Your task to perform on an android device: Open Yahoo.com Image 0: 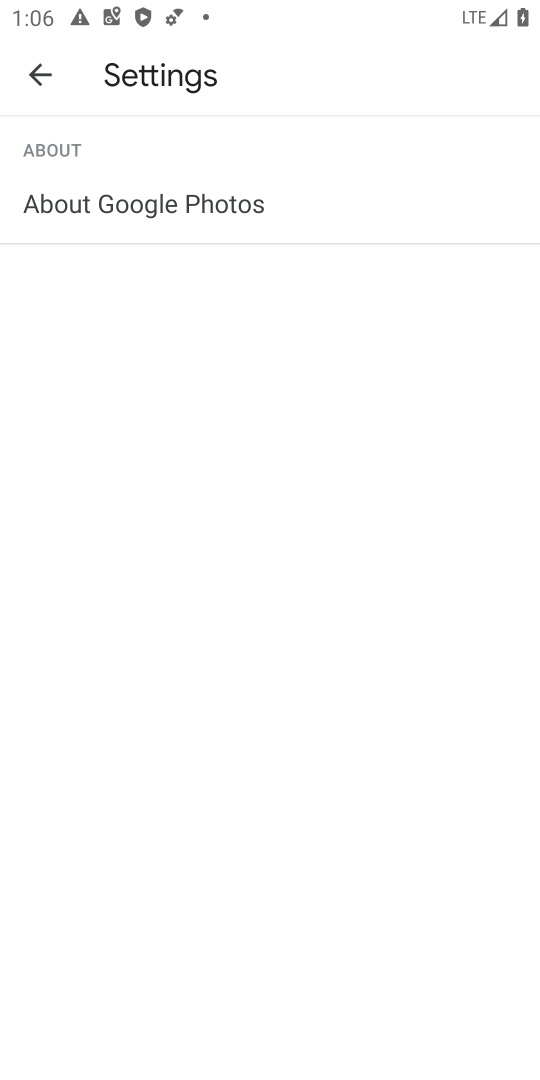
Step 0: press home button
Your task to perform on an android device: Open Yahoo.com Image 1: 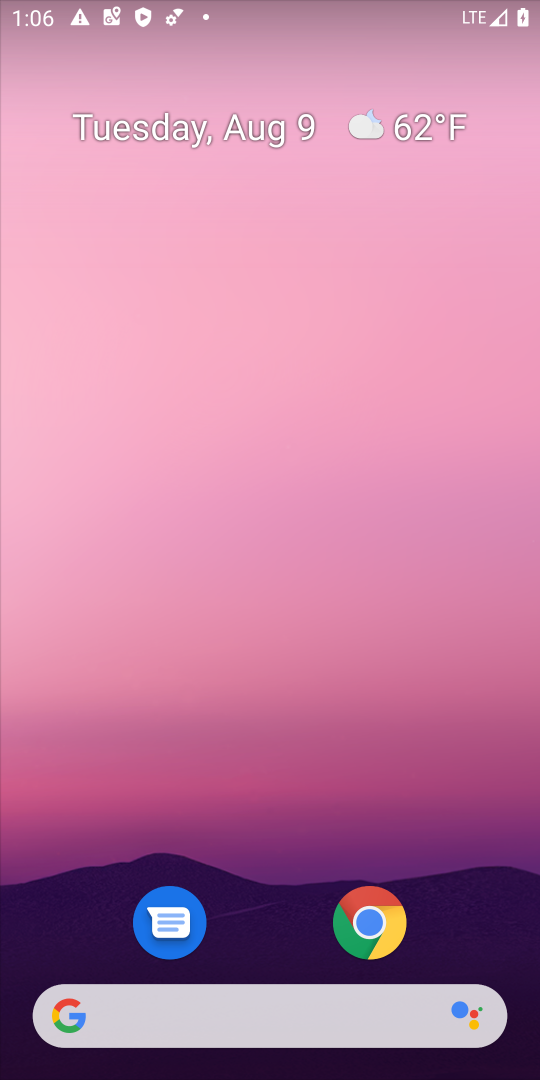
Step 1: click (370, 922)
Your task to perform on an android device: Open Yahoo.com Image 2: 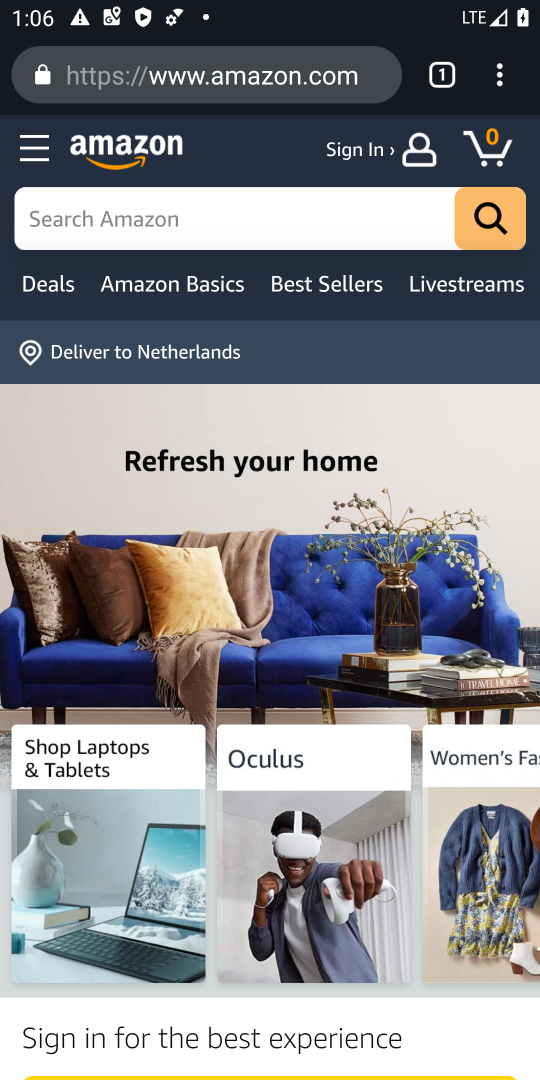
Step 2: click (442, 76)
Your task to perform on an android device: Open Yahoo.com Image 3: 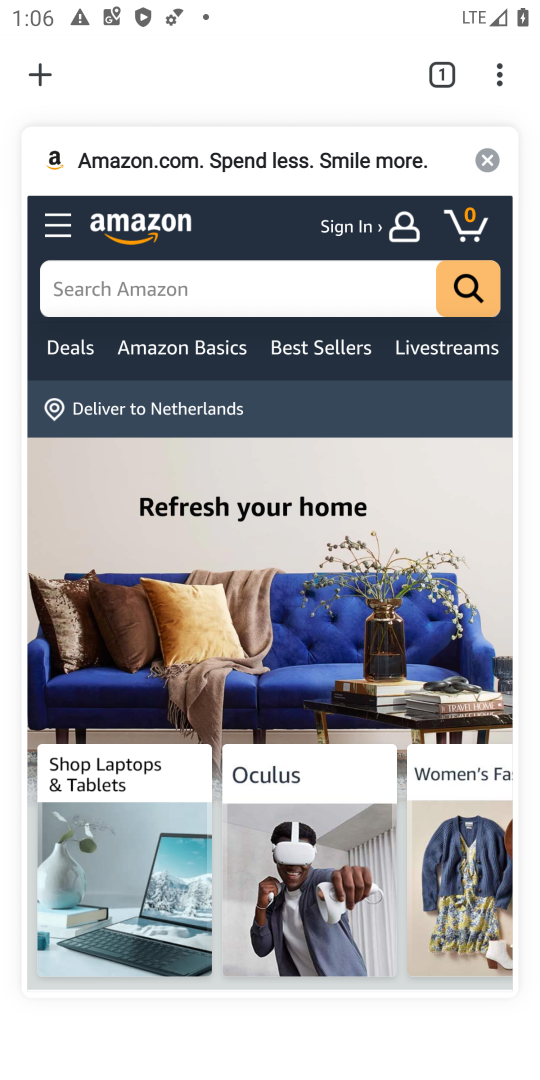
Step 3: click (40, 74)
Your task to perform on an android device: Open Yahoo.com Image 4: 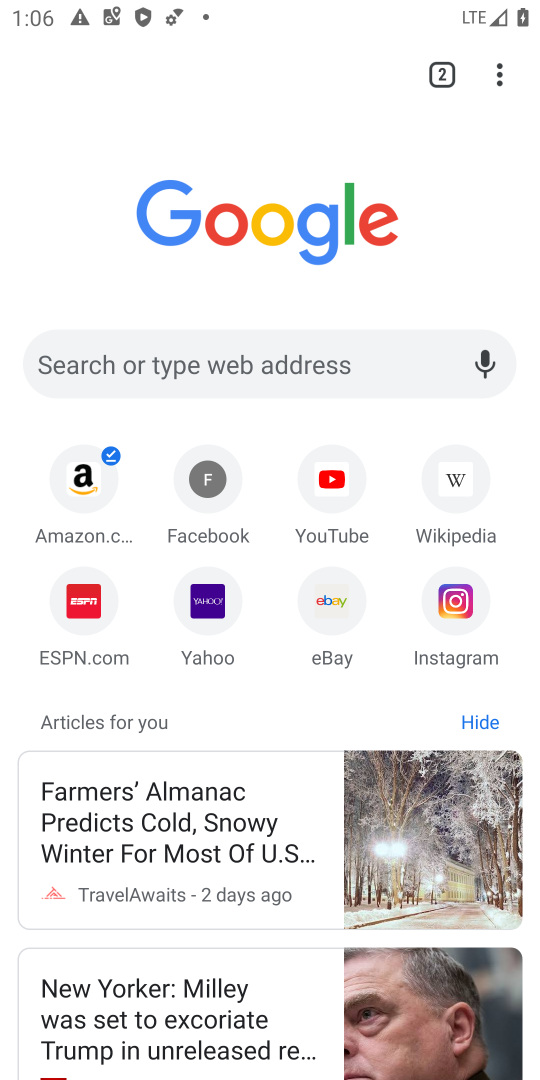
Step 4: click (227, 610)
Your task to perform on an android device: Open Yahoo.com Image 5: 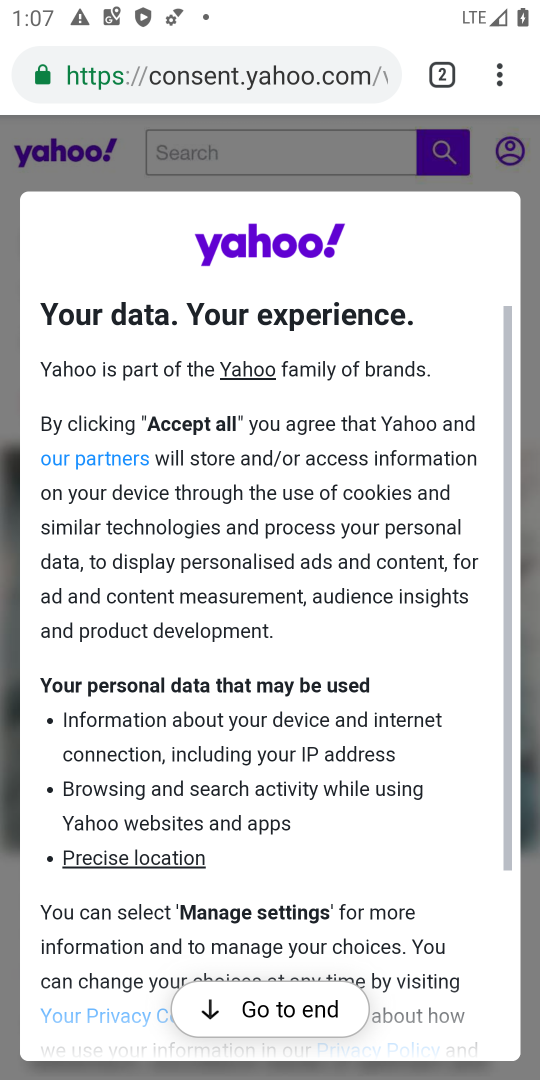
Step 5: click (282, 1009)
Your task to perform on an android device: Open Yahoo.com Image 6: 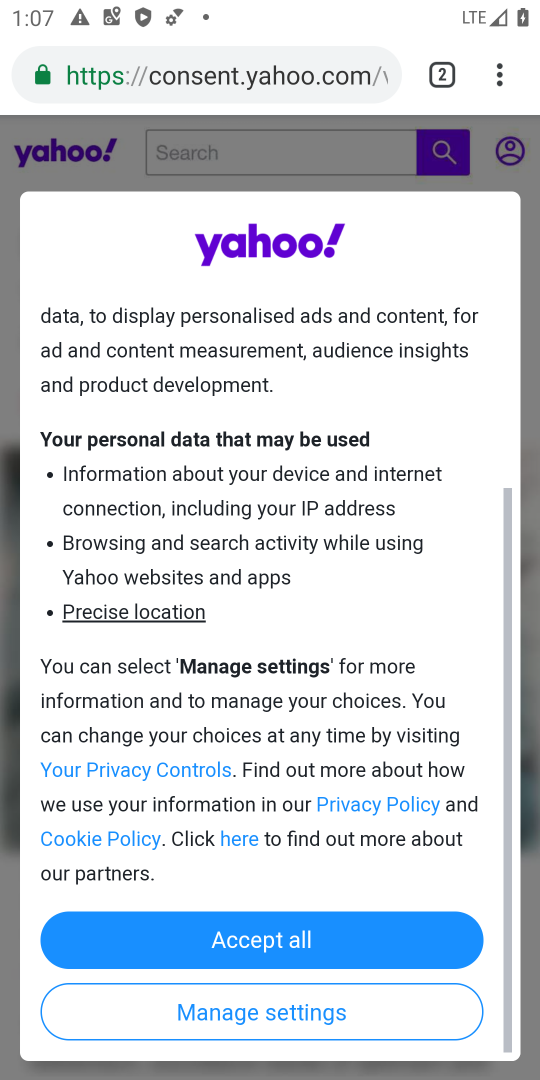
Step 6: click (298, 926)
Your task to perform on an android device: Open Yahoo.com Image 7: 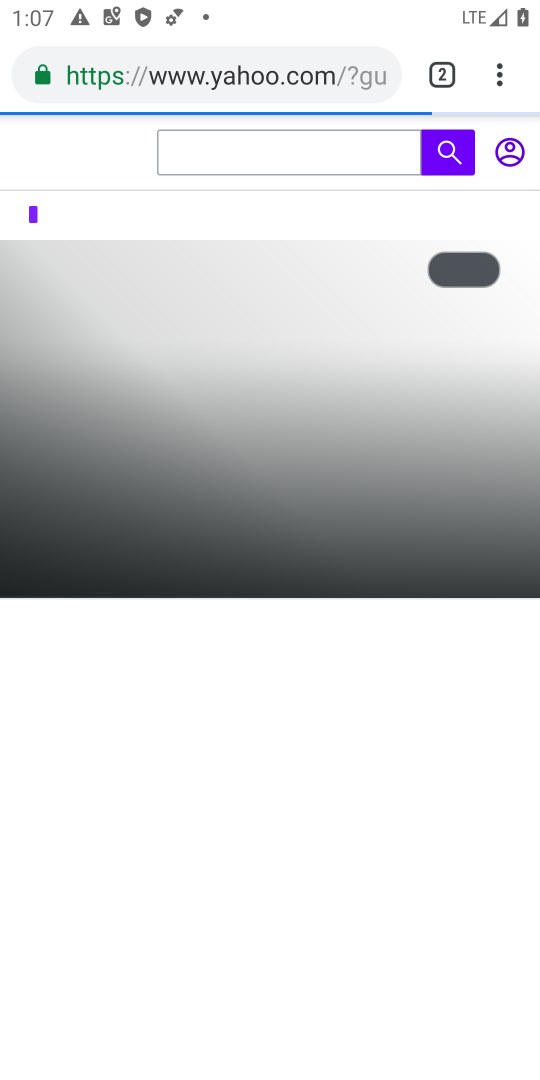
Step 7: task complete